Your task to perform on an android device: turn on showing notifications on the lock screen Image 0: 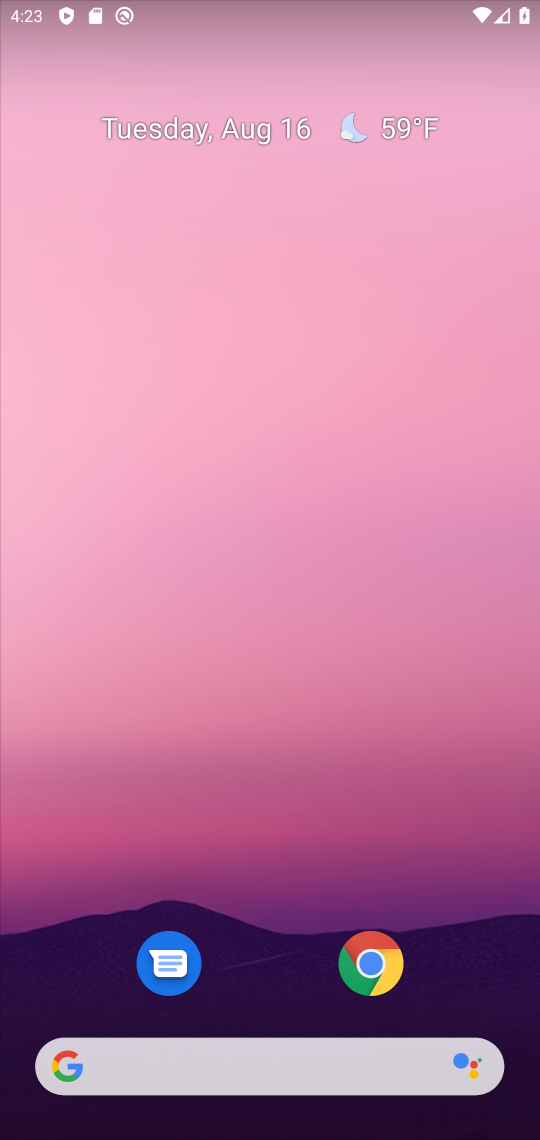
Step 0: press home button
Your task to perform on an android device: turn on showing notifications on the lock screen Image 1: 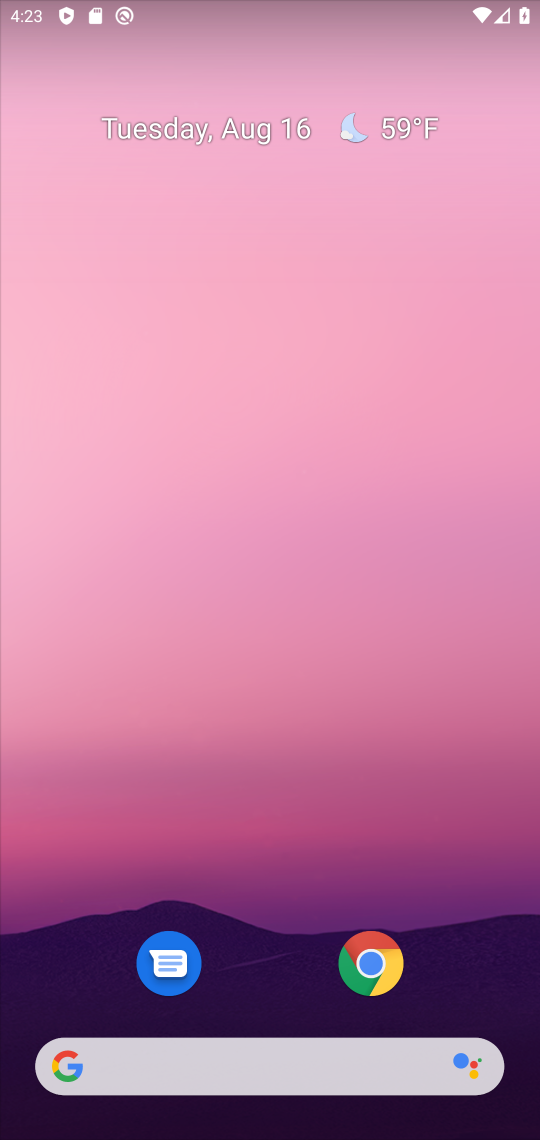
Step 1: click (193, 138)
Your task to perform on an android device: turn on showing notifications on the lock screen Image 2: 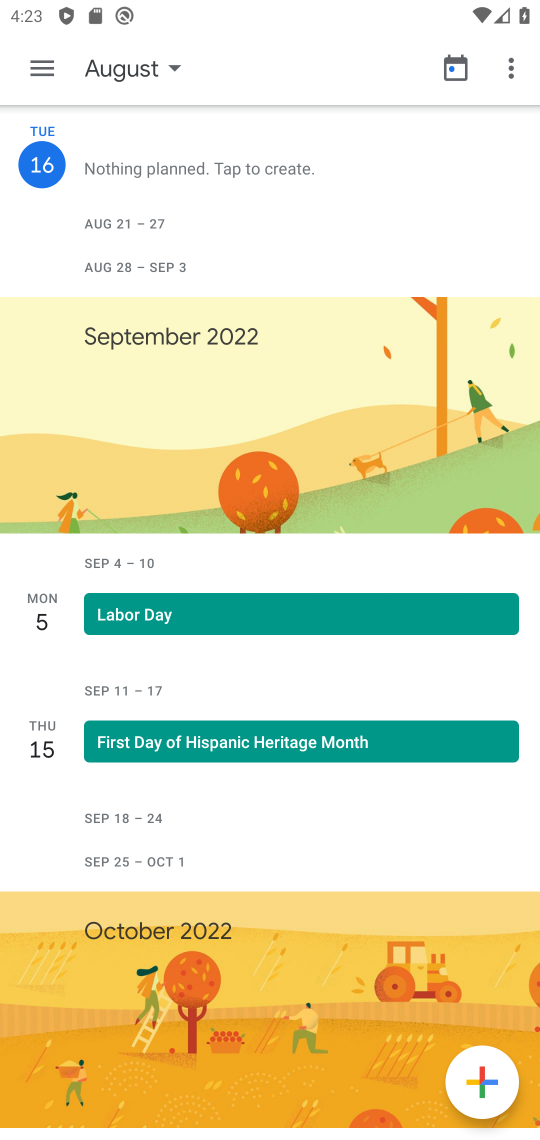
Step 2: press back button
Your task to perform on an android device: turn on showing notifications on the lock screen Image 3: 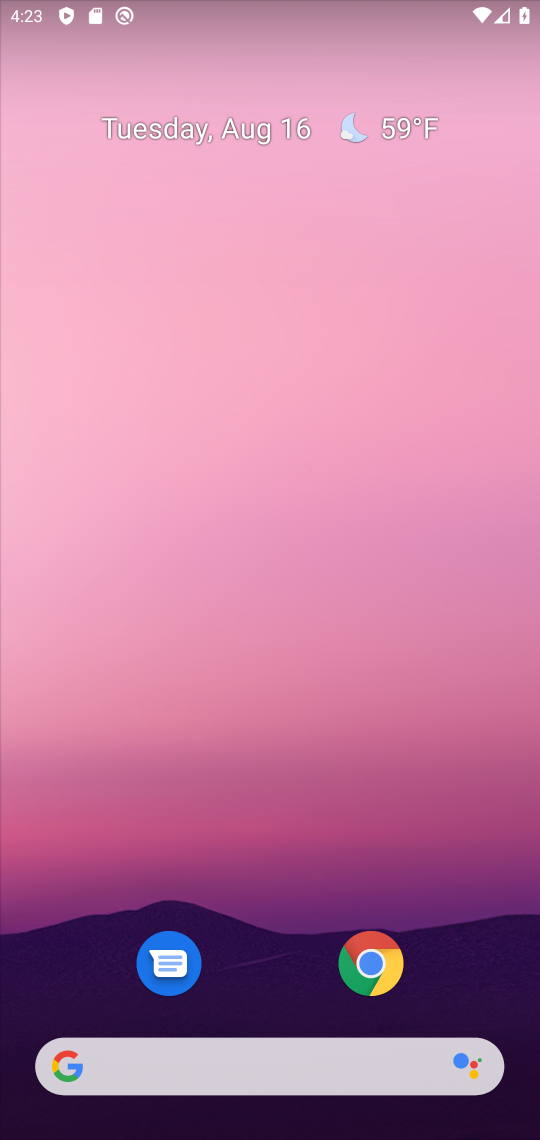
Step 3: drag from (233, 992) to (187, 154)
Your task to perform on an android device: turn on showing notifications on the lock screen Image 4: 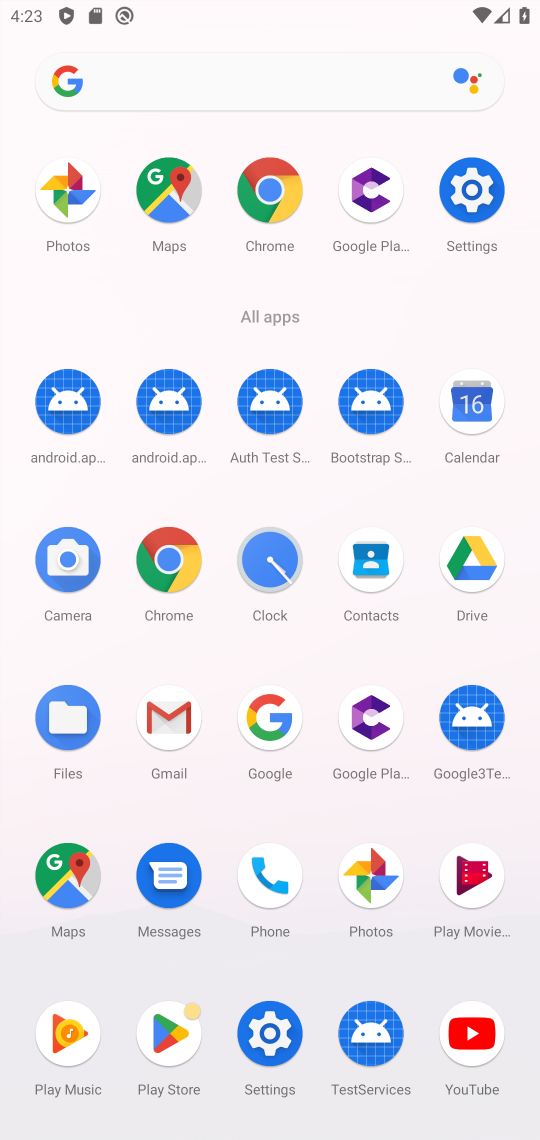
Step 4: click (466, 168)
Your task to perform on an android device: turn on showing notifications on the lock screen Image 5: 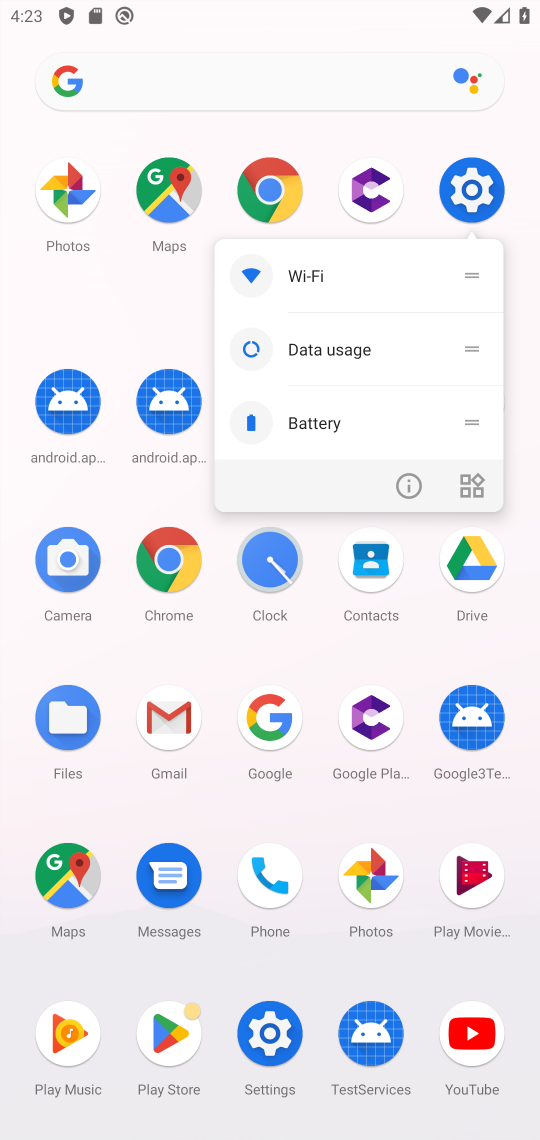
Step 5: click (475, 189)
Your task to perform on an android device: turn on showing notifications on the lock screen Image 6: 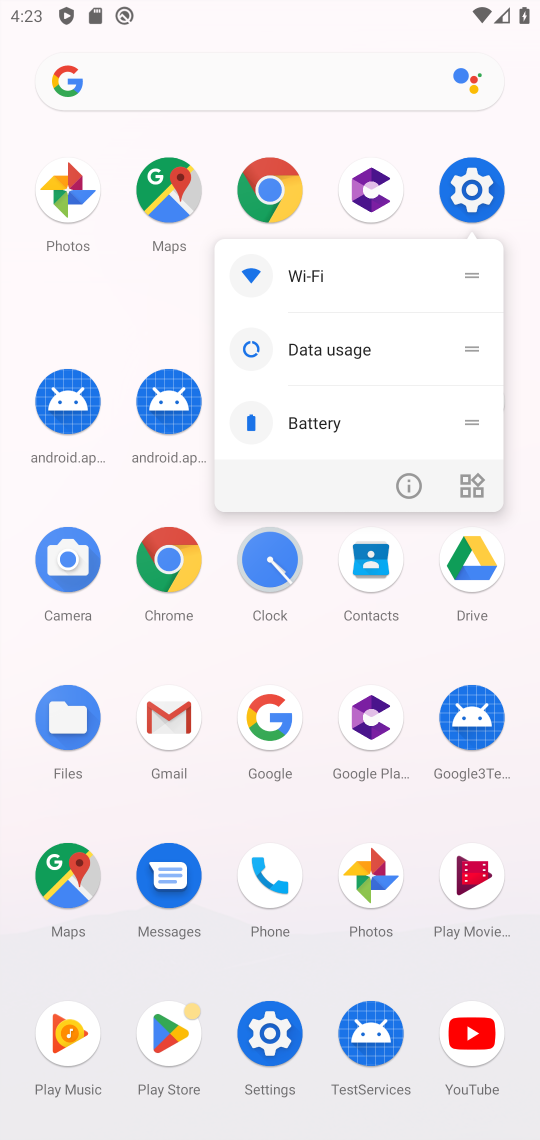
Step 6: click (484, 186)
Your task to perform on an android device: turn on showing notifications on the lock screen Image 7: 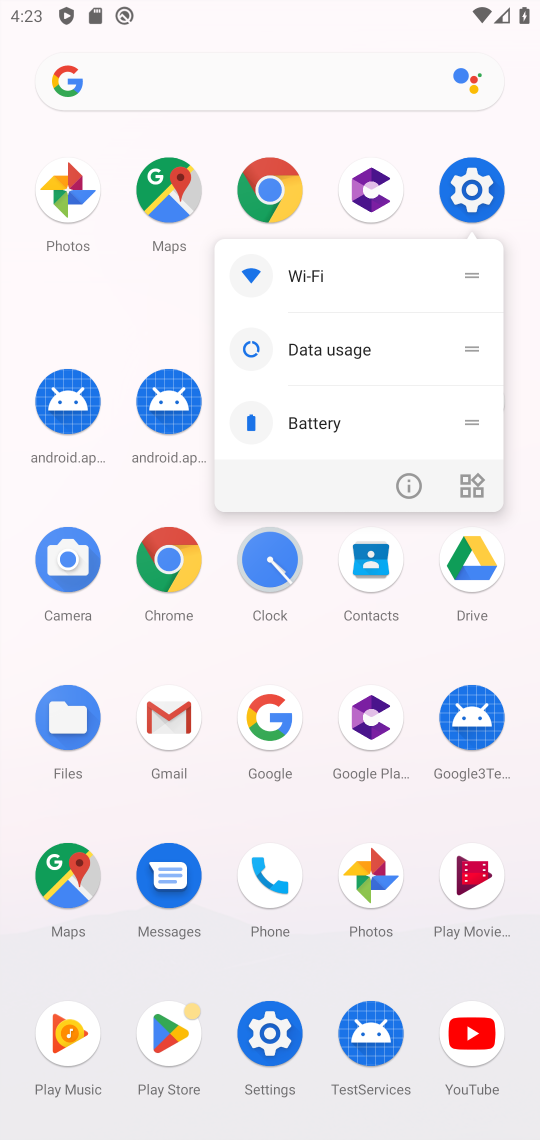
Step 7: click (470, 183)
Your task to perform on an android device: turn on showing notifications on the lock screen Image 8: 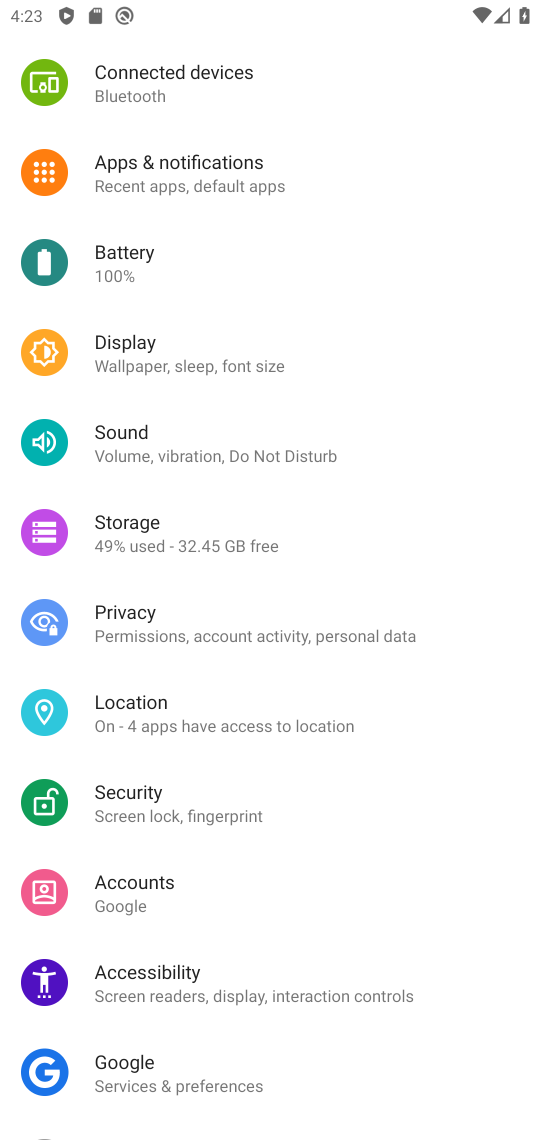
Step 8: drag from (177, 224) to (148, 611)
Your task to perform on an android device: turn on showing notifications on the lock screen Image 9: 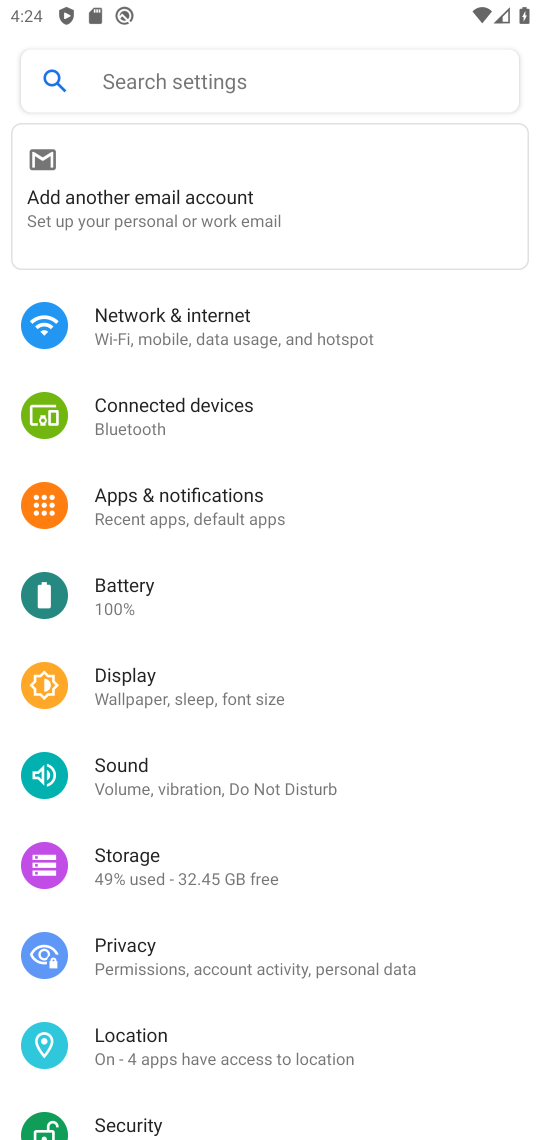
Step 9: click (156, 508)
Your task to perform on an android device: turn on showing notifications on the lock screen Image 10: 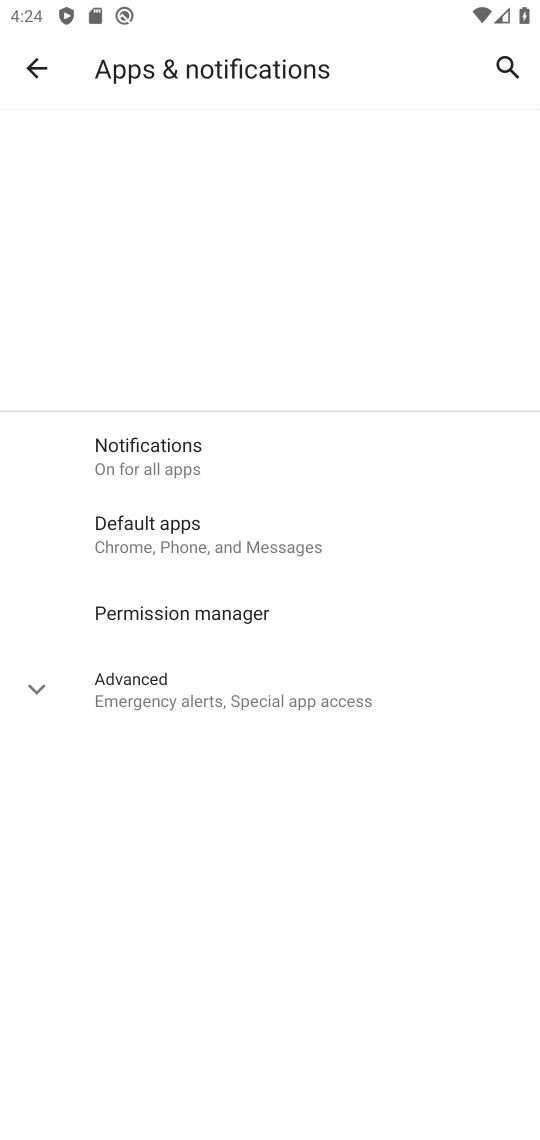
Step 10: click (33, 676)
Your task to perform on an android device: turn on showing notifications on the lock screen Image 11: 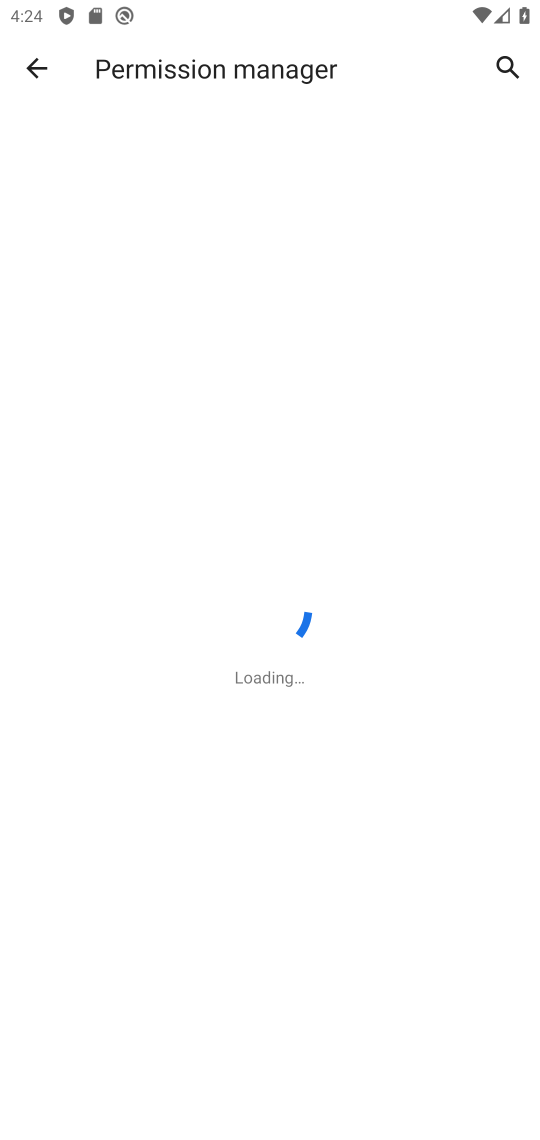
Step 11: press back button
Your task to perform on an android device: turn on showing notifications on the lock screen Image 12: 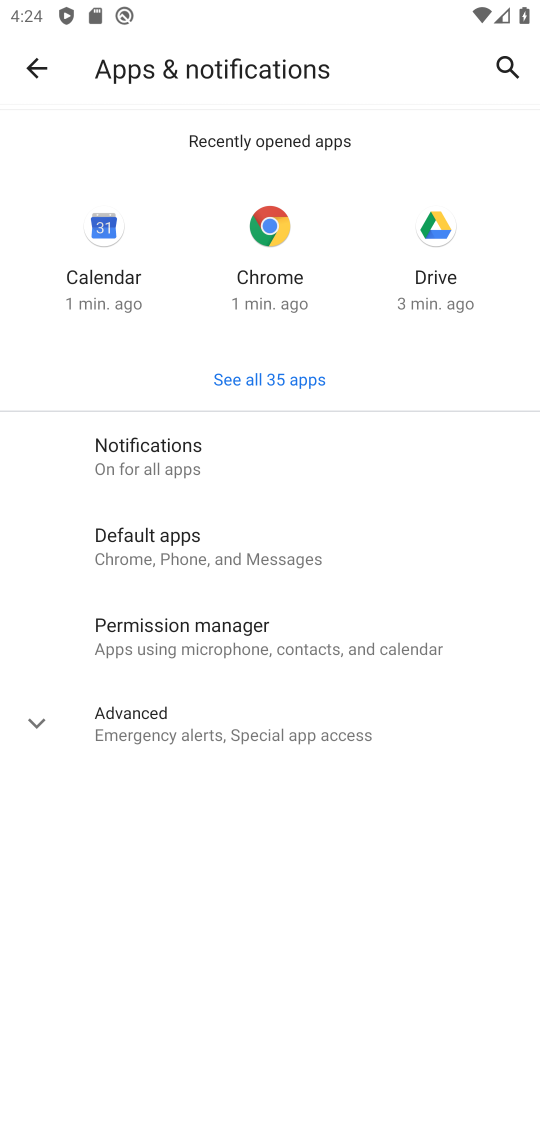
Step 12: click (158, 466)
Your task to perform on an android device: turn on showing notifications on the lock screen Image 13: 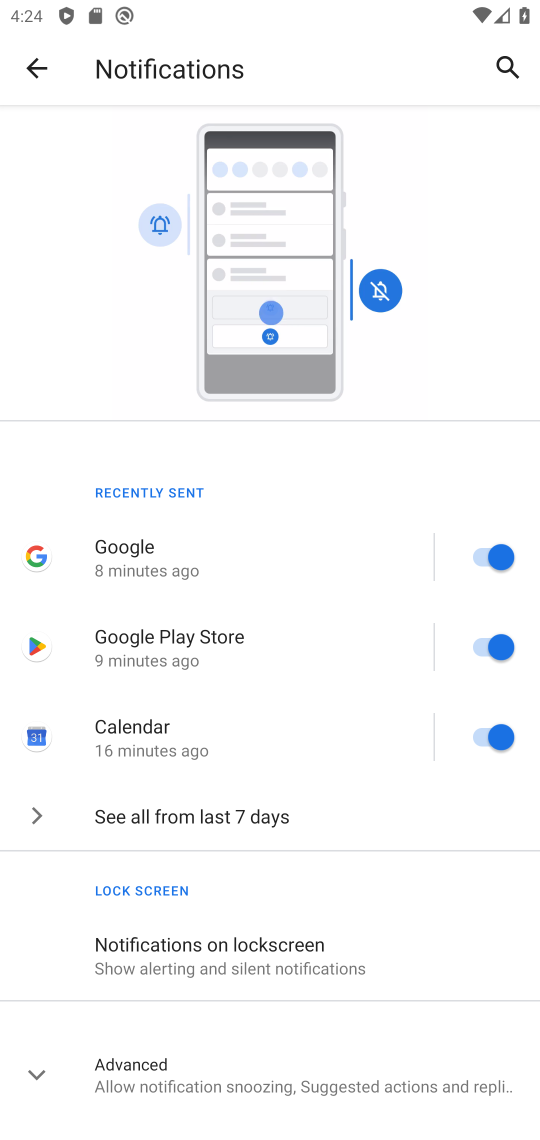
Step 13: click (273, 956)
Your task to perform on an android device: turn on showing notifications on the lock screen Image 14: 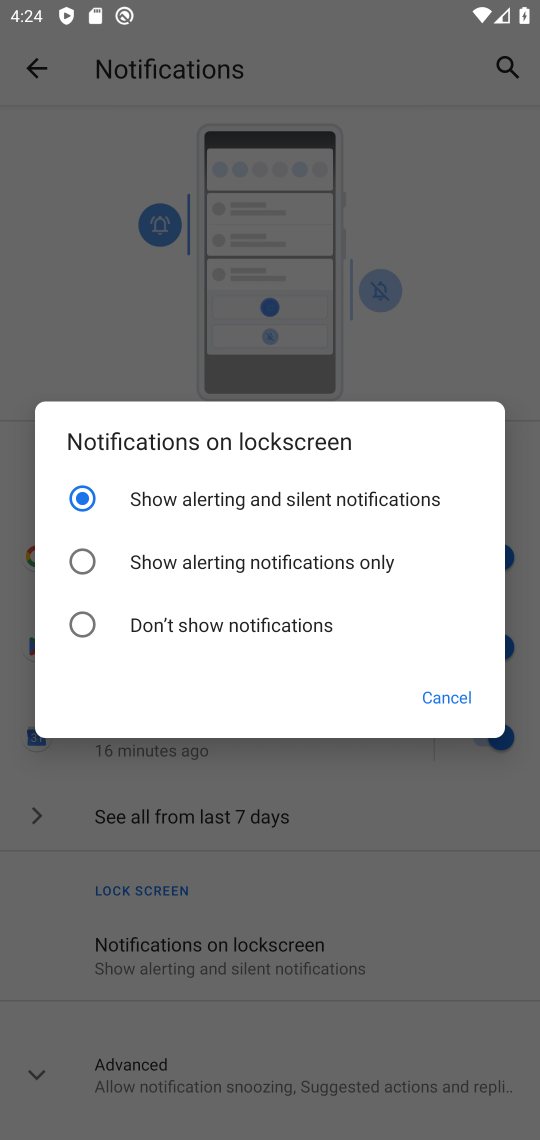
Step 14: task complete